Your task to perform on an android device: set default search engine in the chrome app Image 0: 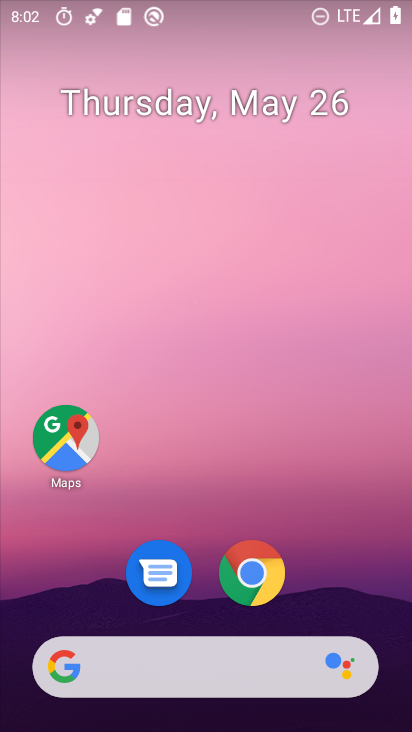
Step 0: drag from (301, 538) to (208, 42)
Your task to perform on an android device: set default search engine in the chrome app Image 1: 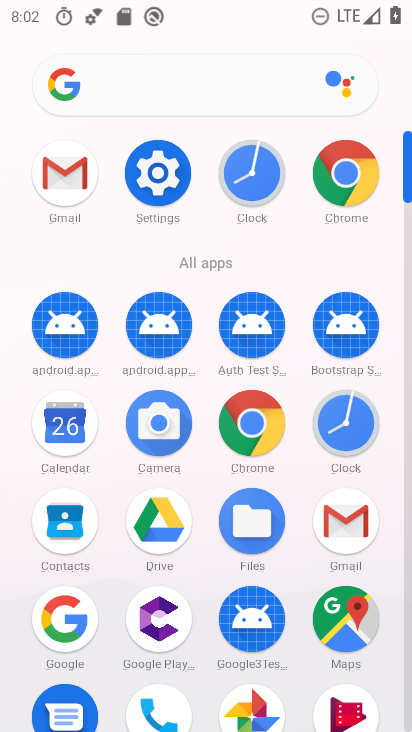
Step 1: drag from (19, 580) to (18, 292)
Your task to perform on an android device: set default search engine in the chrome app Image 2: 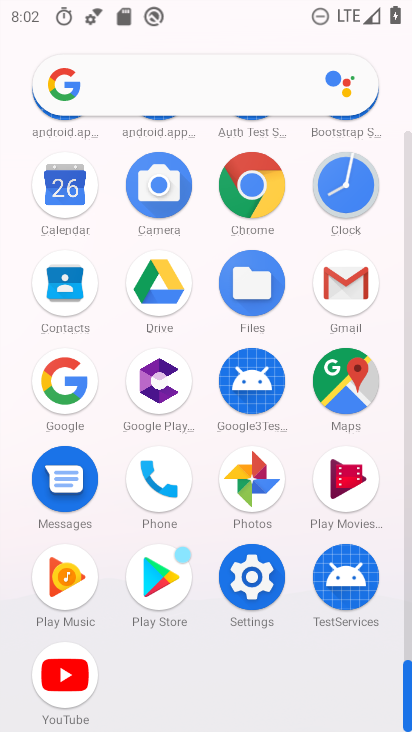
Step 2: click (252, 184)
Your task to perform on an android device: set default search engine in the chrome app Image 3: 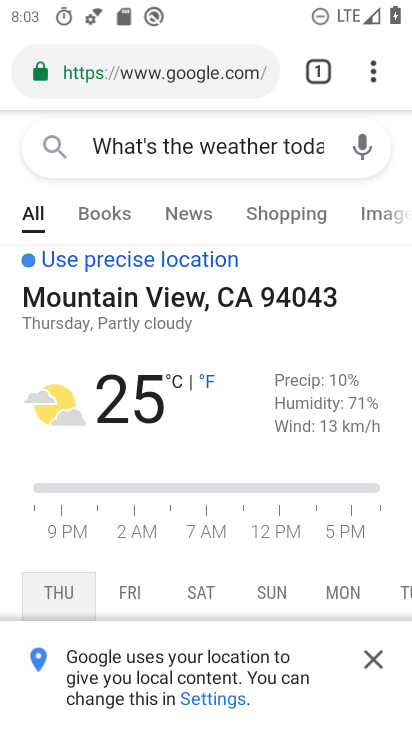
Step 3: drag from (374, 72) to (141, 564)
Your task to perform on an android device: set default search engine in the chrome app Image 4: 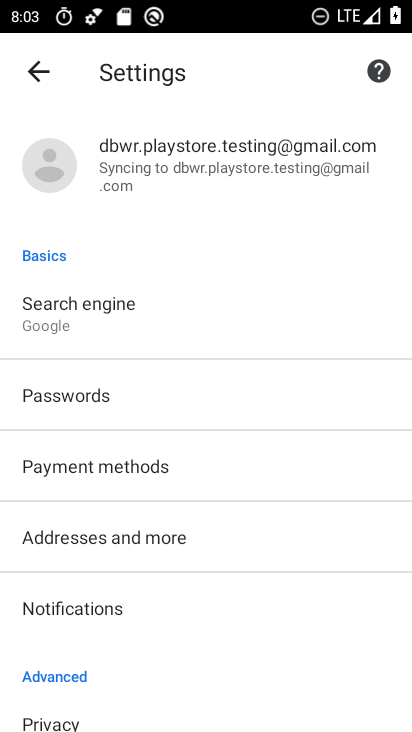
Step 4: click (136, 312)
Your task to perform on an android device: set default search engine in the chrome app Image 5: 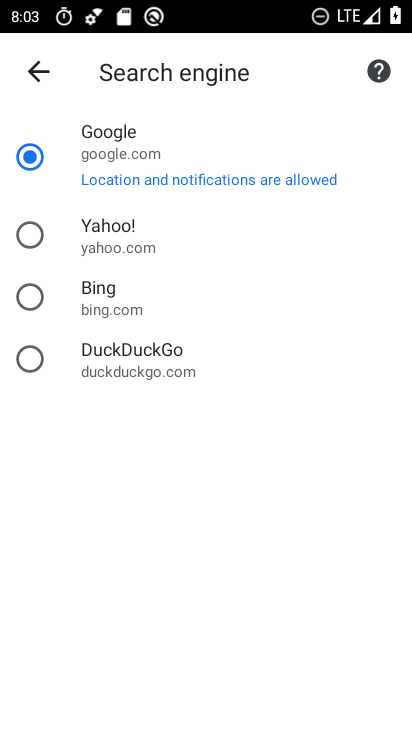
Step 5: click (136, 148)
Your task to perform on an android device: set default search engine in the chrome app Image 6: 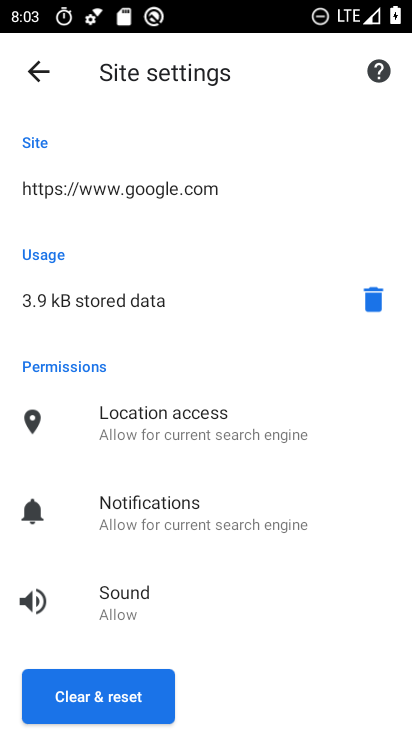
Step 6: click (37, 74)
Your task to perform on an android device: set default search engine in the chrome app Image 7: 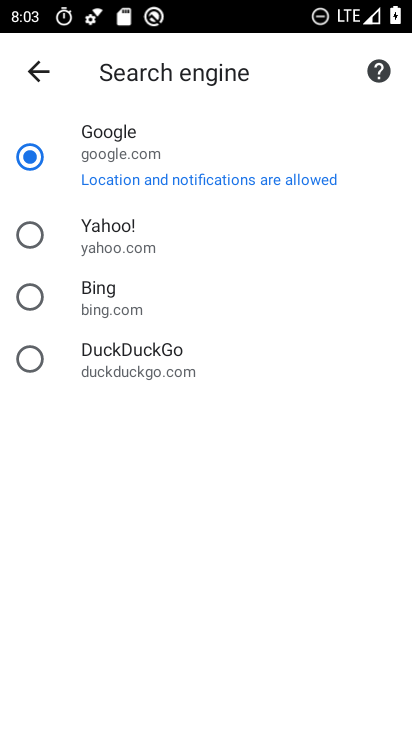
Step 7: click (37, 74)
Your task to perform on an android device: set default search engine in the chrome app Image 8: 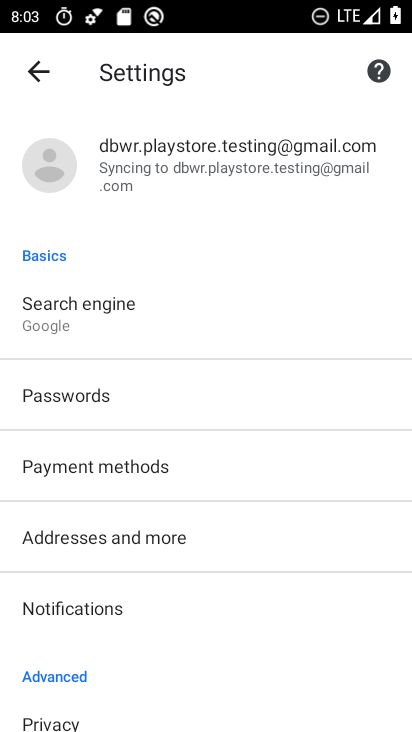
Step 8: task complete